Your task to perform on an android device: Do I have any events this weekend? Image 0: 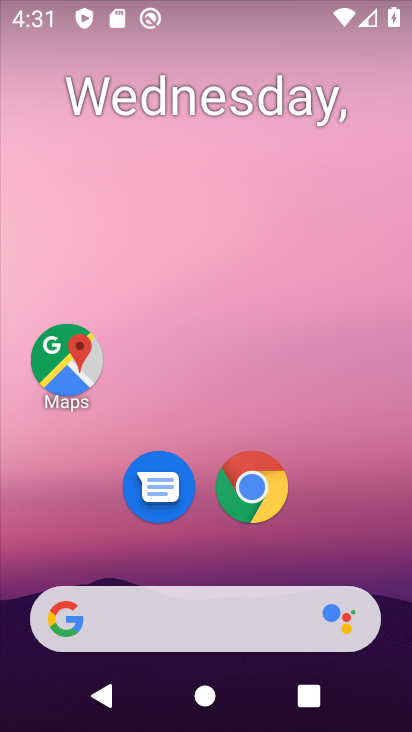
Step 0: press home button
Your task to perform on an android device: Do I have any events this weekend? Image 1: 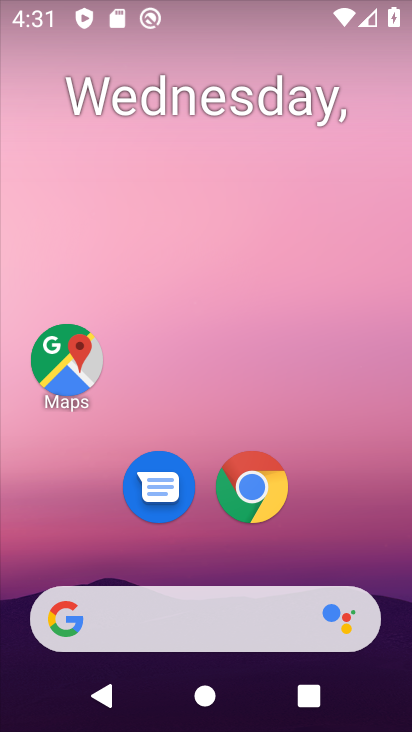
Step 1: drag from (215, 560) to (222, 21)
Your task to perform on an android device: Do I have any events this weekend? Image 2: 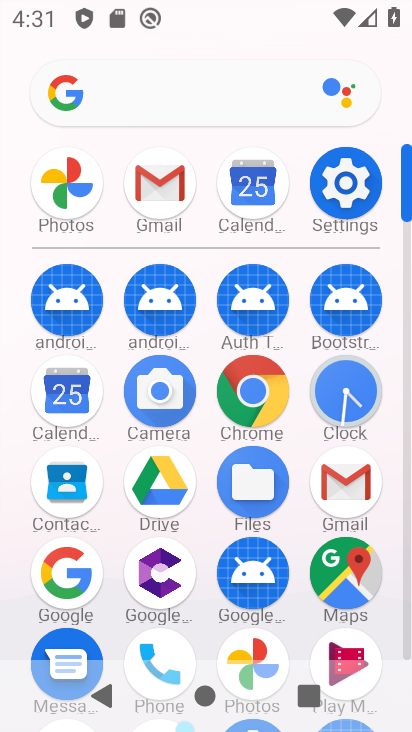
Step 2: click (253, 186)
Your task to perform on an android device: Do I have any events this weekend? Image 3: 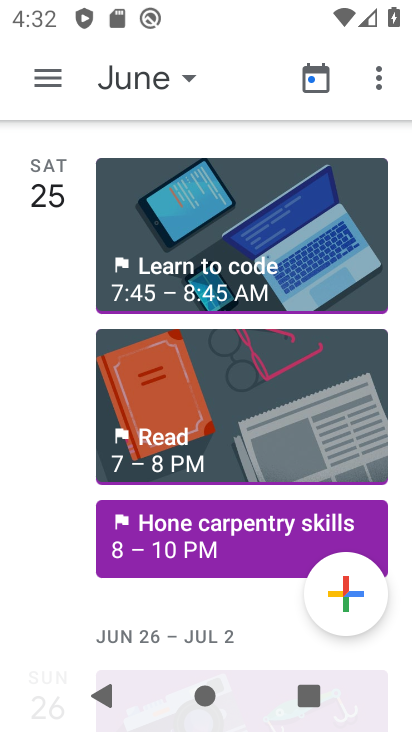
Step 3: click (55, 76)
Your task to perform on an android device: Do I have any events this weekend? Image 4: 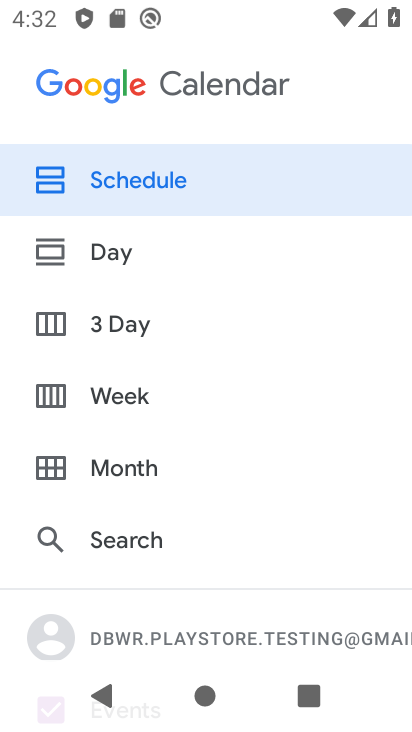
Step 4: click (70, 395)
Your task to perform on an android device: Do I have any events this weekend? Image 5: 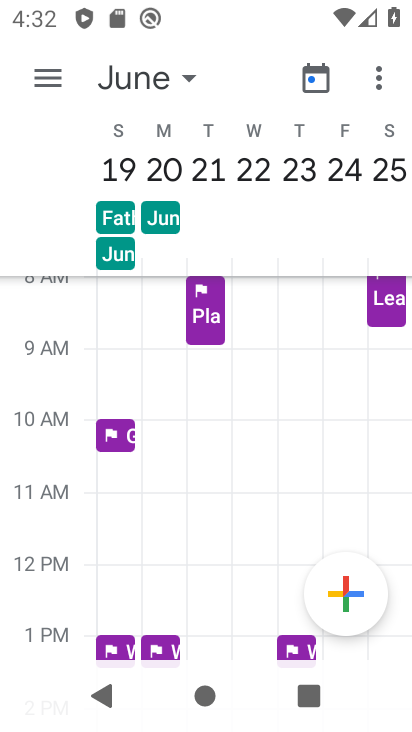
Step 5: click (183, 77)
Your task to perform on an android device: Do I have any events this weekend? Image 6: 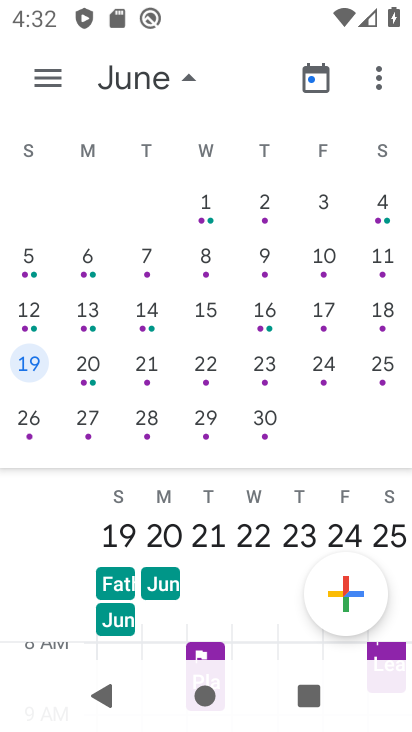
Step 6: drag from (53, 352) to (407, 380)
Your task to perform on an android device: Do I have any events this weekend? Image 7: 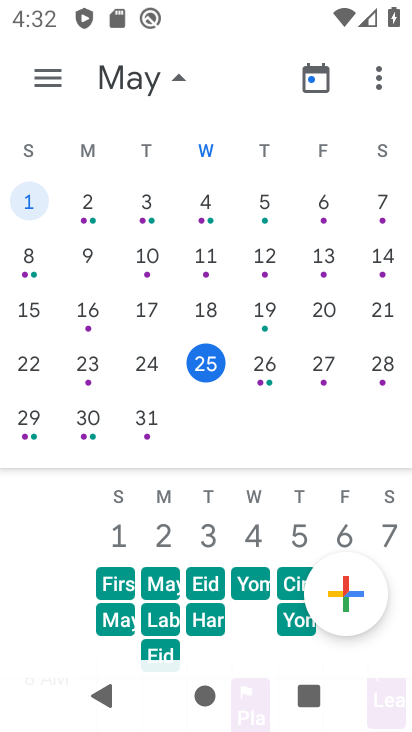
Step 7: click (207, 353)
Your task to perform on an android device: Do I have any events this weekend? Image 8: 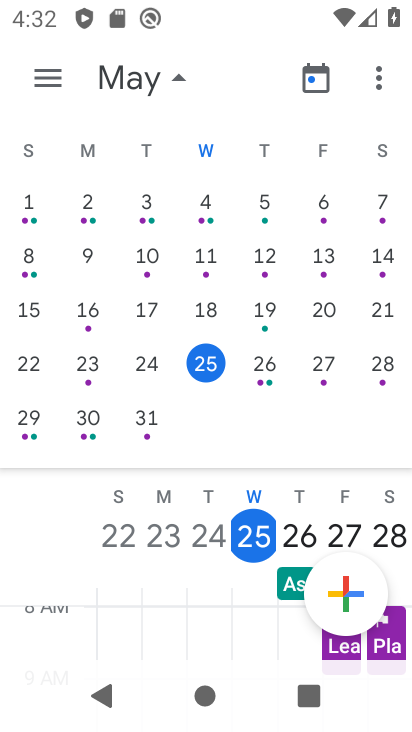
Step 8: click (201, 355)
Your task to perform on an android device: Do I have any events this weekend? Image 9: 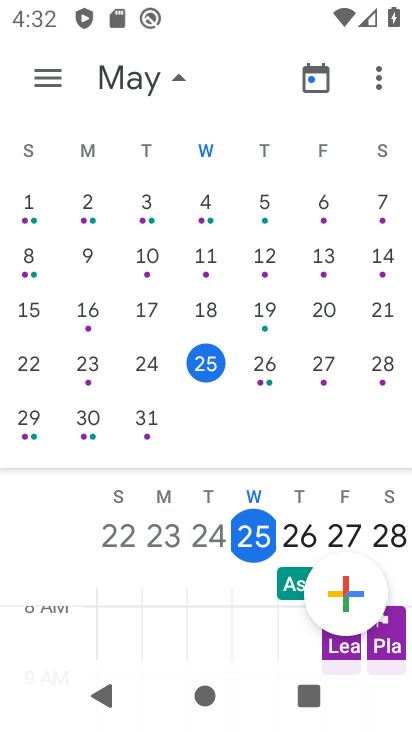
Step 9: click (173, 80)
Your task to perform on an android device: Do I have any events this weekend? Image 10: 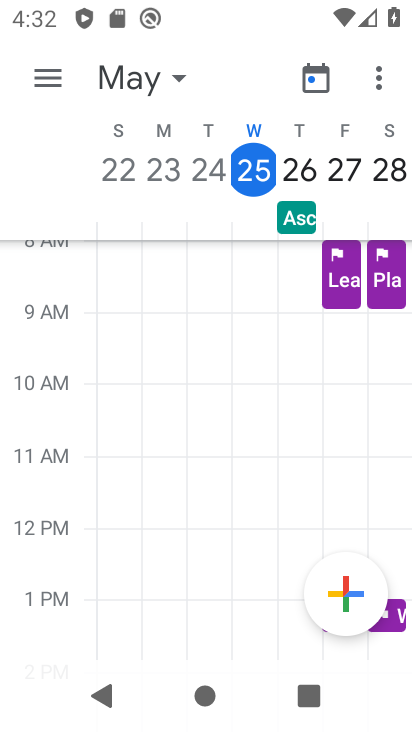
Step 10: click (256, 172)
Your task to perform on an android device: Do I have any events this weekend? Image 11: 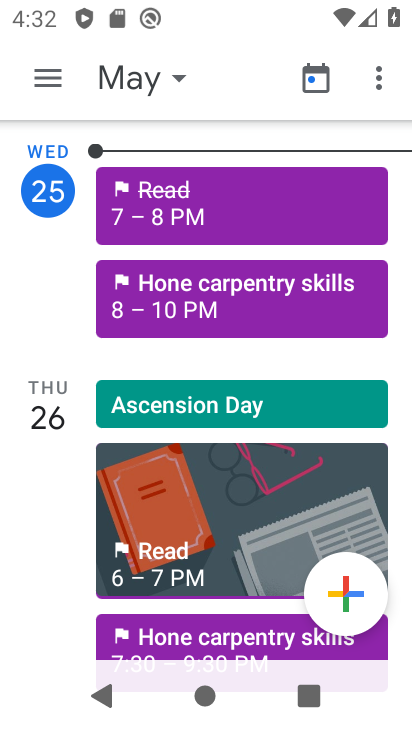
Step 11: drag from (63, 416) to (92, 195)
Your task to perform on an android device: Do I have any events this weekend? Image 12: 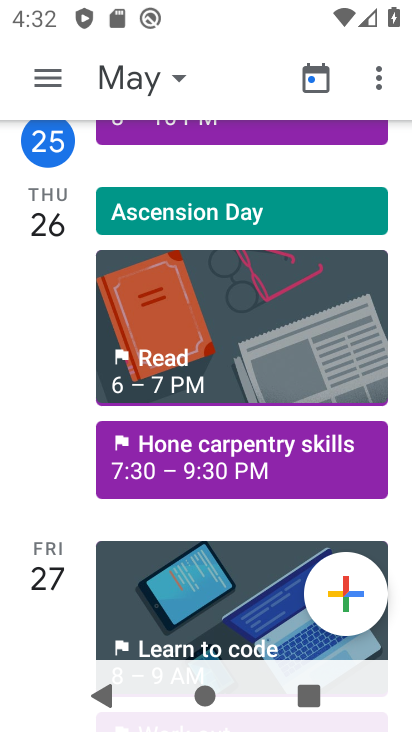
Step 12: click (51, 69)
Your task to perform on an android device: Do I have any events this weekend? Image 13: 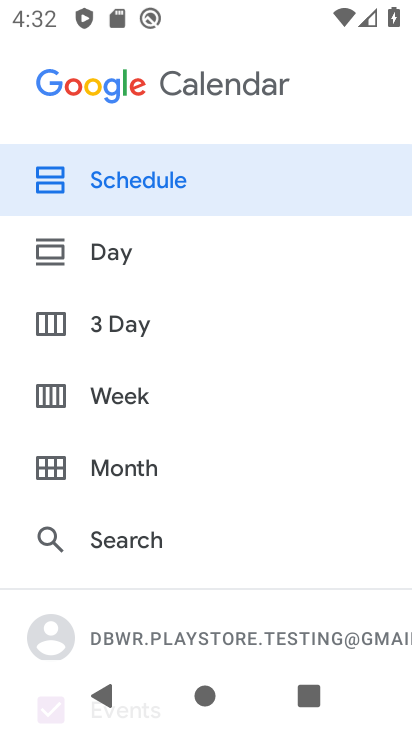
Step 13: drag from (90, 523) to (127, 138)
Your task to perform on an android device: Do I have any events this weekend? Image 14: 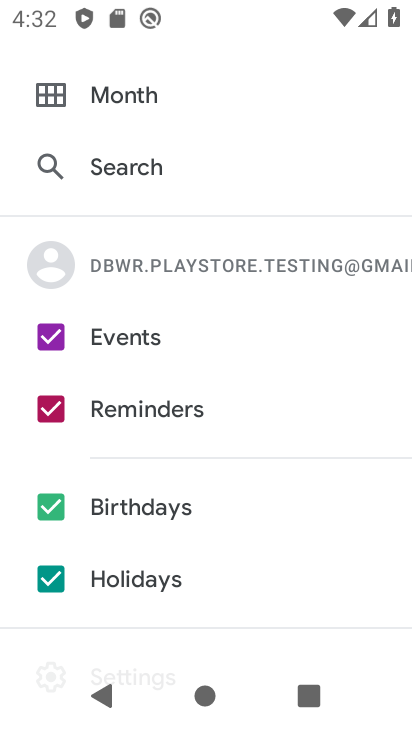
Step 14: click (55, 569)
Your task to perform on an android device: Do I have any events this weekend? Image 15: 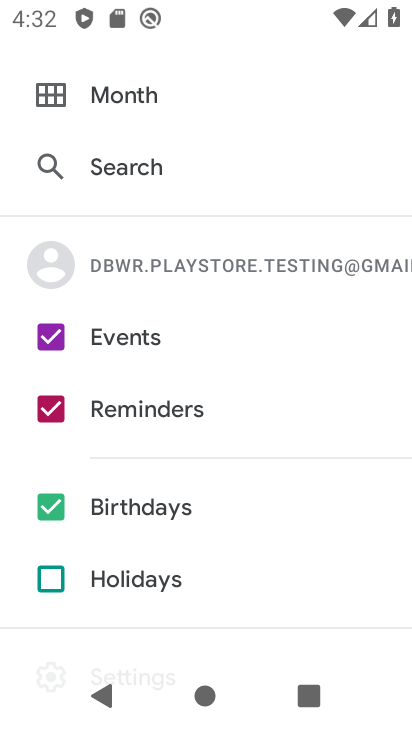
Step 15: click (46, 504)
Your task to perform on an android device: Do I have any events this weekend? Image 16: 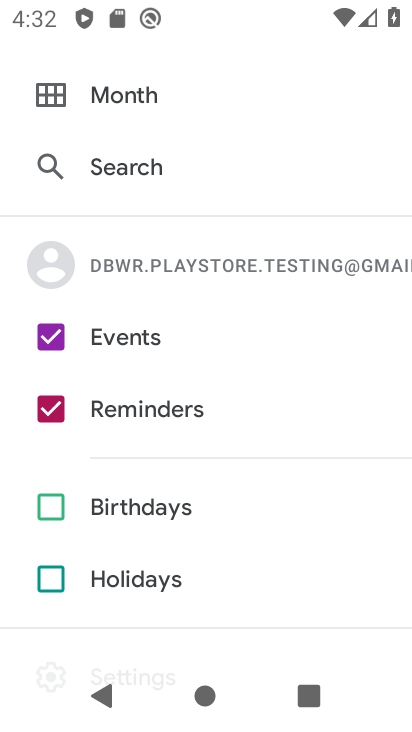
Step 16: click (49, 413)
Your task to perform on an android device: Do I have any events this weekend? Image 17: 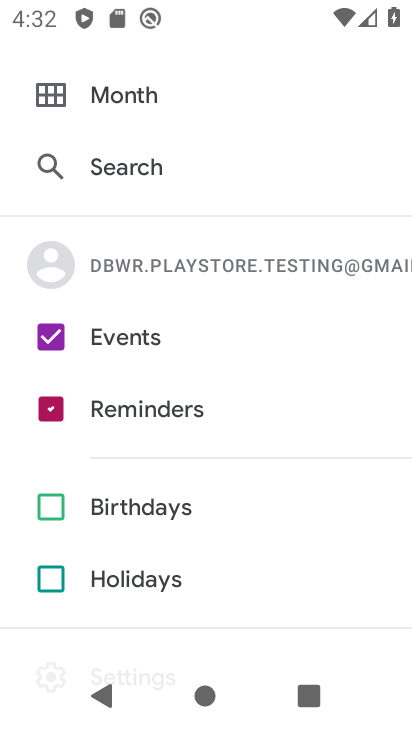
Step 17: drag from (128, 308) to (161, 572)
Your task to perform on an android device: Do I have any events this weekend? Image 18: 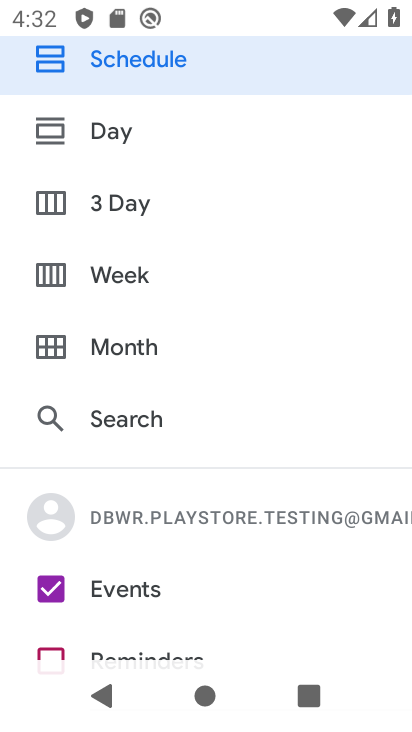
Step 18: drag from (146, 196) to (170, 608)
Your task to perform on an android device: Do I have any events this weekend? Image 19: 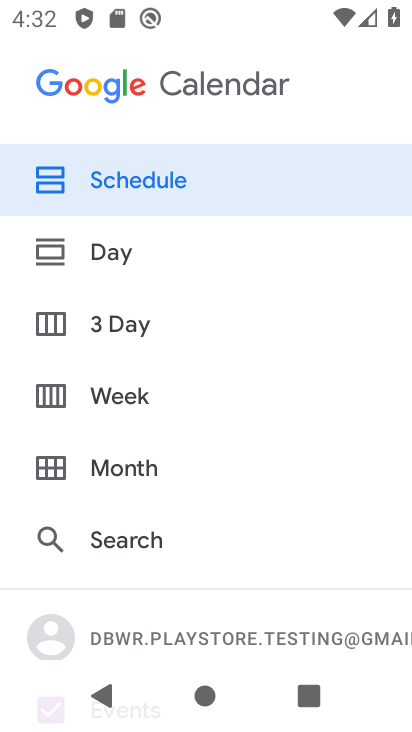
Step 19: click (79, 190)
Your task to perform on an android device: Do I have any events this weekend? Image 20: 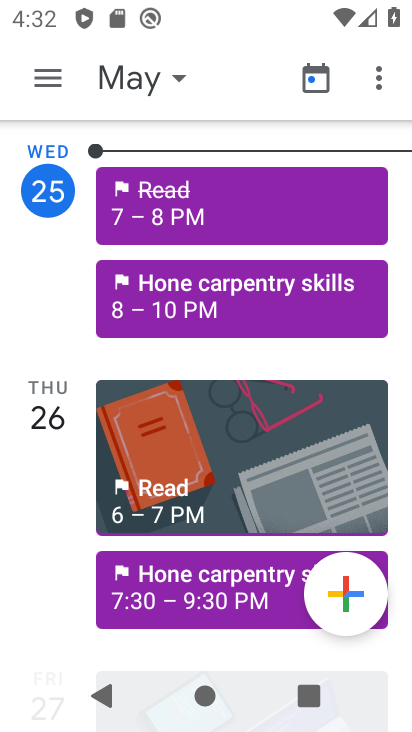
Step 20: task complete